Your task to perform on an android device: move a message to another label in the gmail app Image 0: 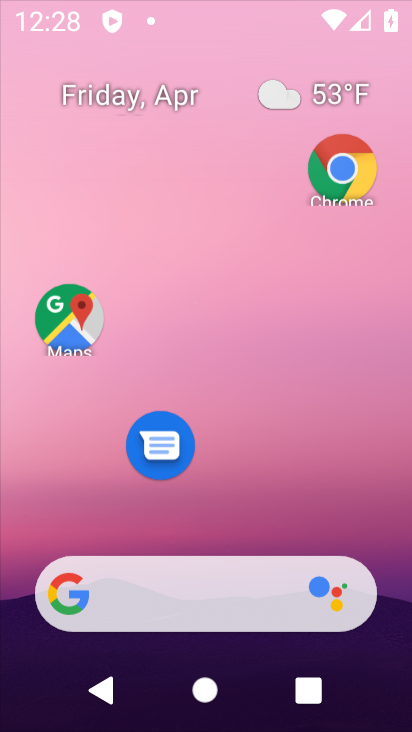
Step 0: click (59, 247)
Your task to perform on an android device: move a message to another label in the gmail app Image 1: 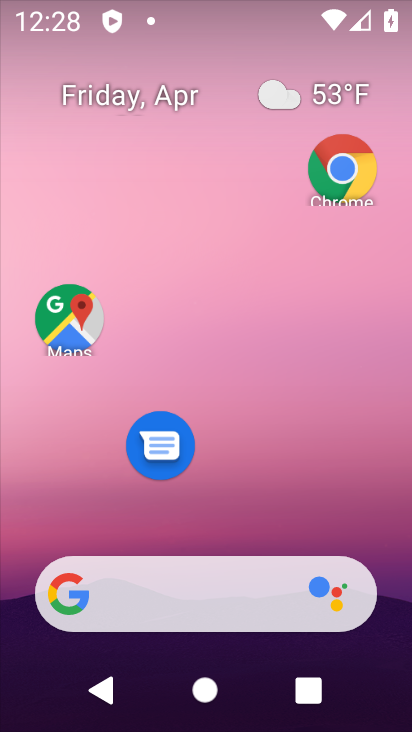
Step 1: drag from (300, 505) to (224, 83)
Your task to perform on an android device: move a message to another label in the gmail app Image 2: 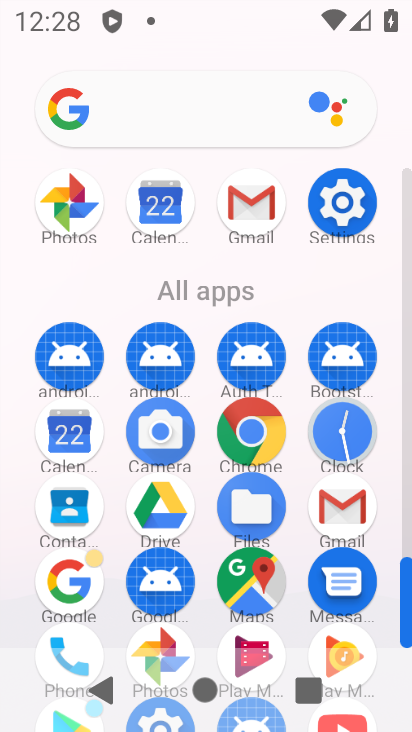
Step 2: click (331, 188)
Your task to perform on an android device: move a message to another label in the gmail app Image 3: 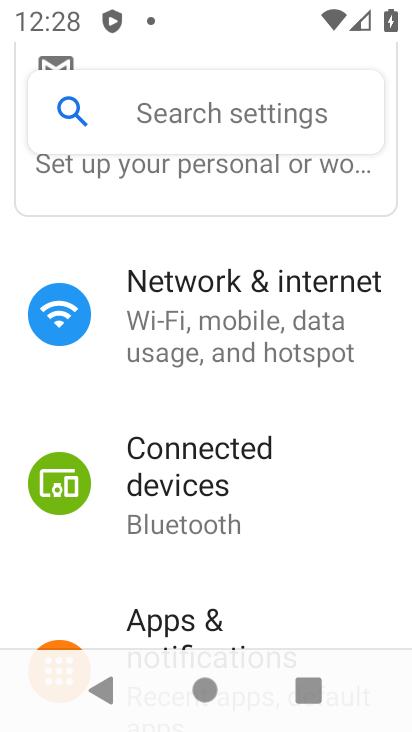
Step 3: press home button
Your task to perform on an android device: move a message to another label in the gmail app Image 4: 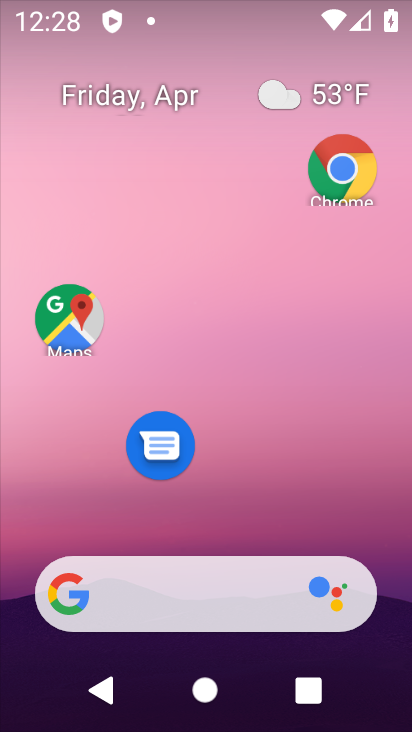
Step 4: drag from (277, 473) to (214, 64)
Your task to perform on an android device: move a message to another label in the gmail app Image 5: 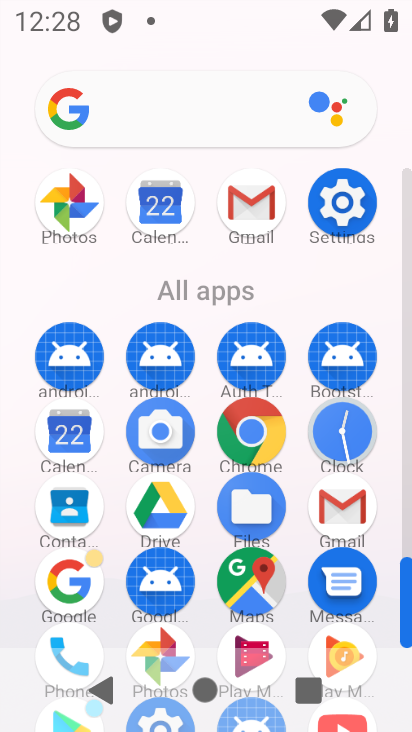
Step 5: click (234, 210)
Your task to perform on an android device: move a message to another label in the gmail app Image 6: 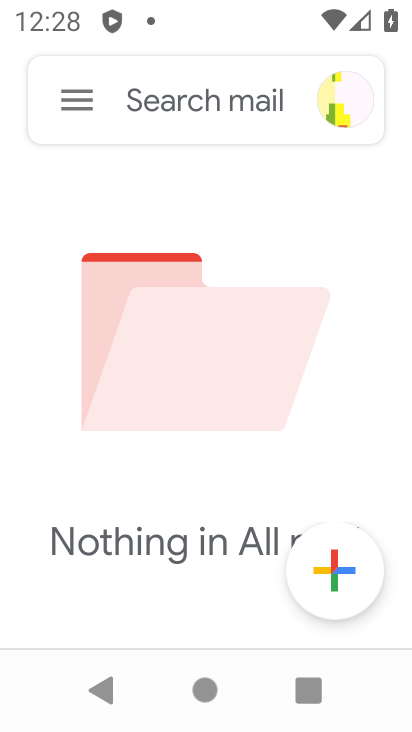
Step 6: click (75, 113)
Your task to perform on an android device: move a message to another label in the gmail app Image 7: 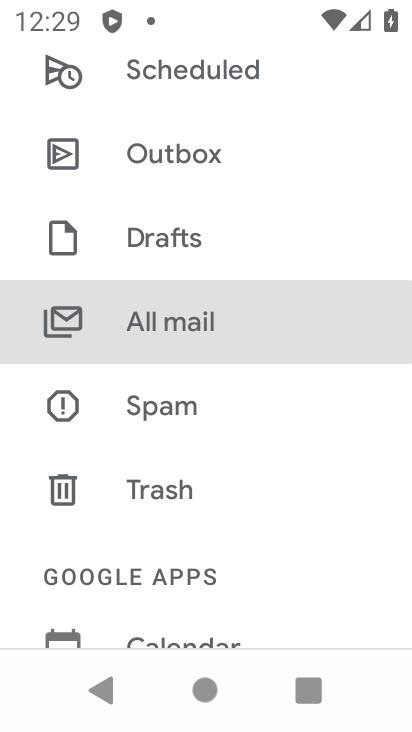
Step 7: drag from (177, 464) to (207, 194)
Your task to perform on an android device: move a message to another label in the gmail app Image 8: 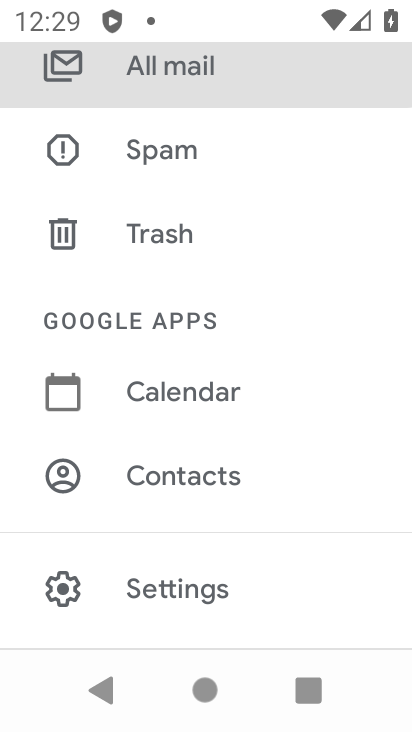
Step 8: drag from (210, 525) to (258, 238)
Your task to perform on an android device: move a message to another label in the gmail app Image 9: 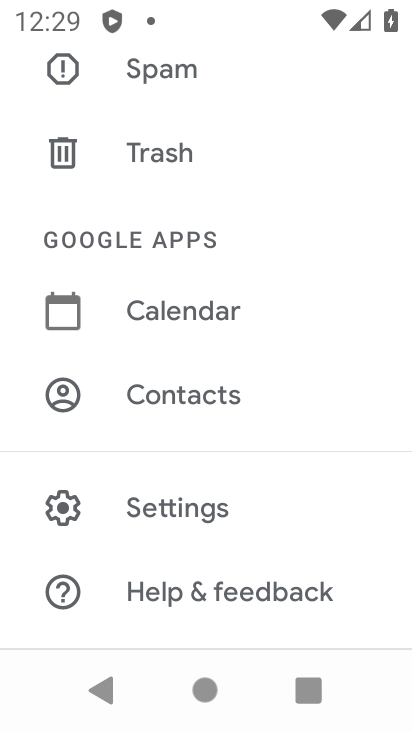
Step 9: drag from (212, 490) to (238, 317)
Your task to perform on an android device: move a message to another label in the gmail app Image 10: 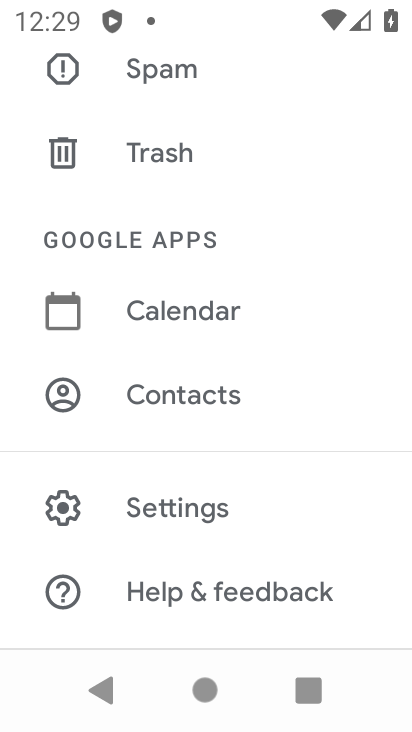
Step 10: drag from (197, 179) to (237, 687)
Your task to perform on an android device: move a message to another label in the gmail app Image 11: 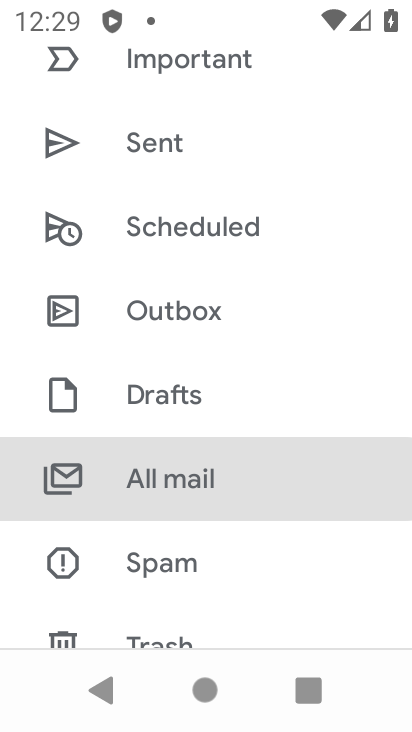
Step 11: drag from (243, 182) to (233, 536)
Your task to perform on an android device: move a message to another label in the gmail app Image 12: 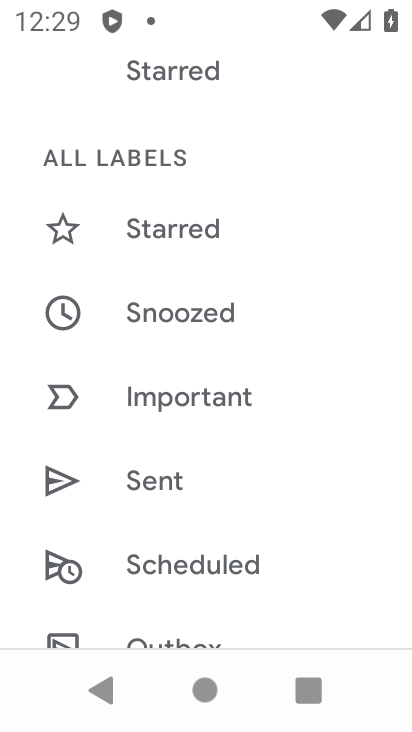
Step 12: drag from (233, 307) to (219, 635)
Your task to perform on an android device: move a message to another label in the gmail app Image 13: 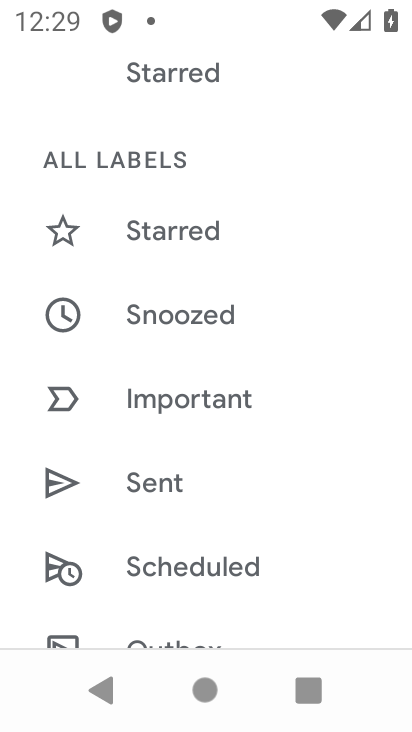
Step 13: drag from (203, 136) to (208, 456)
Your task to perform on an android device: move a message to another label in the gmail app Image 14: 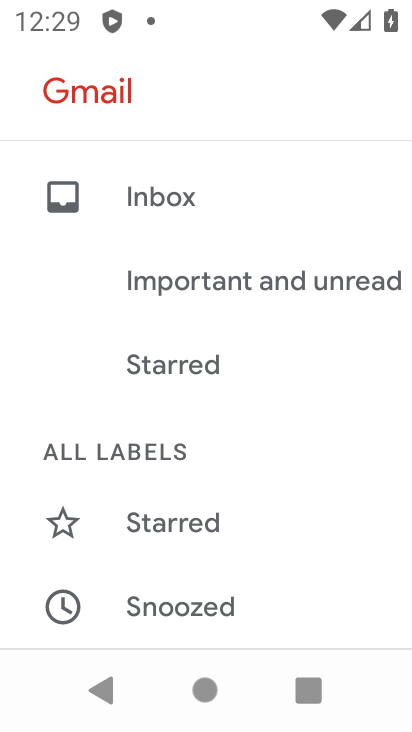
Step 14: drag from (202, 208) to (206, 429)
Your task to perform on an android device: move a message to another label in the gmail app Image 15: 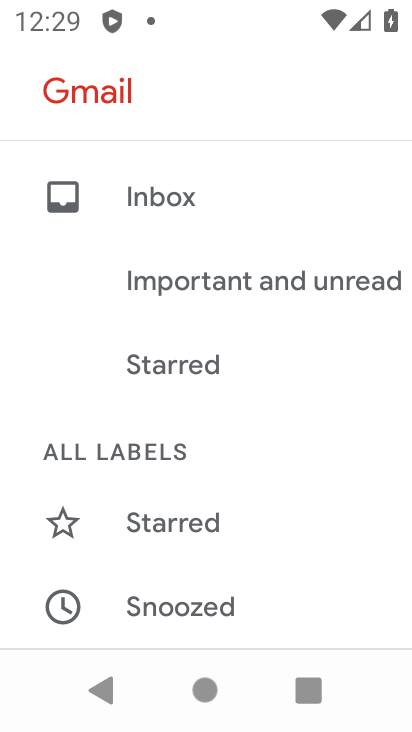
Step 15: drag from (198, 452) to (228, 254)
Your task to perform on an android device: move a message to another label in the gmail app Image 16: 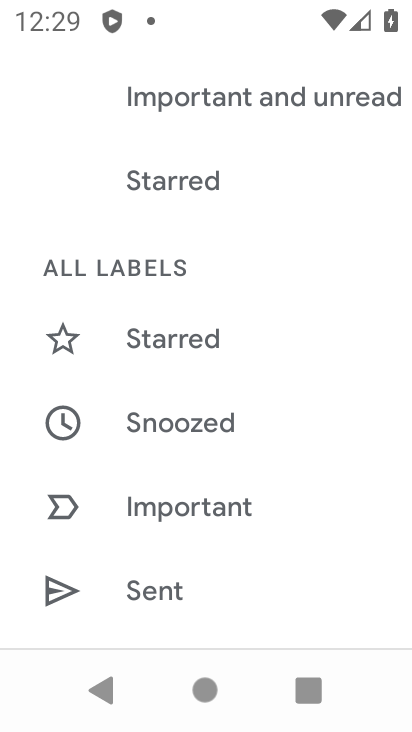
Step 16: drag from (184, 527) to (193, 280)
Your task to perform on an android device: move a message to another label in the gmail app Image 17: 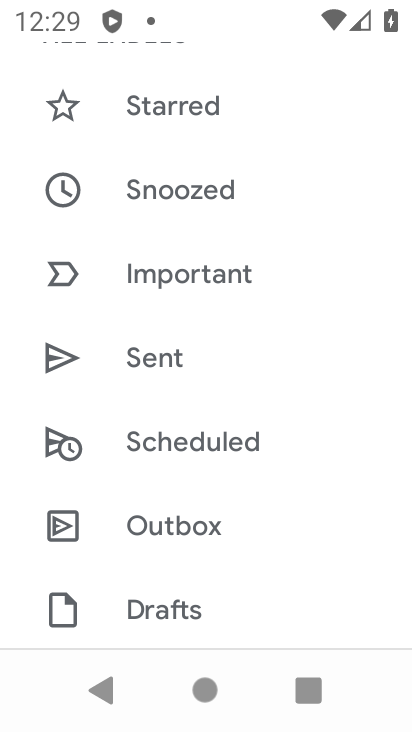
Step 17: click (222, 270)
Your task to perform on an android device: move a message to another label in the gmail app Image 18: 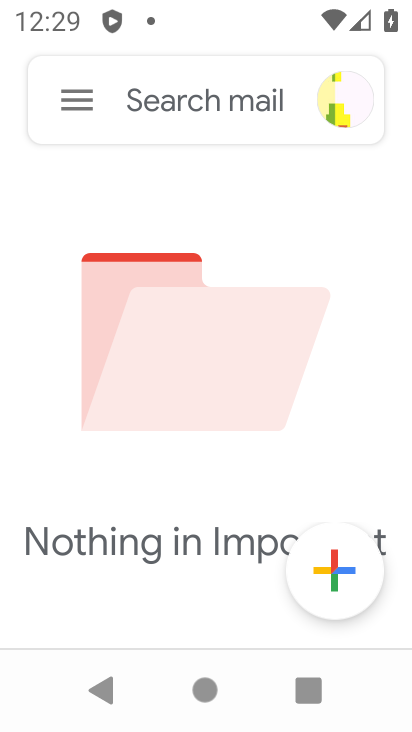
Step 18: task complete